Your task to perform on an android device: change text size in settings app Image 0: 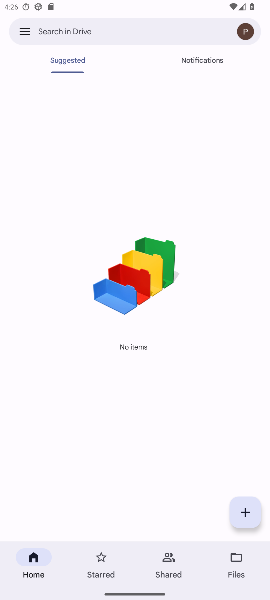
Step 0: press home button
Your task to perform on an android device: change text size in settings app Image 1: 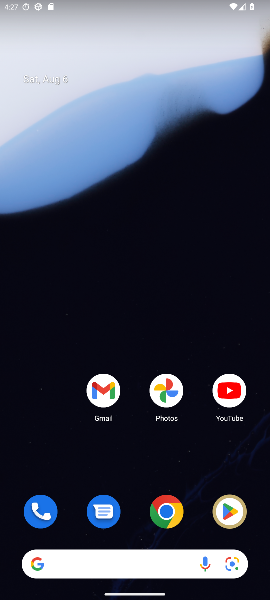
Step 1: drag from (135, 462) to (172, 117)
Your task to perform on an android device: change text size in settings app Image 2: 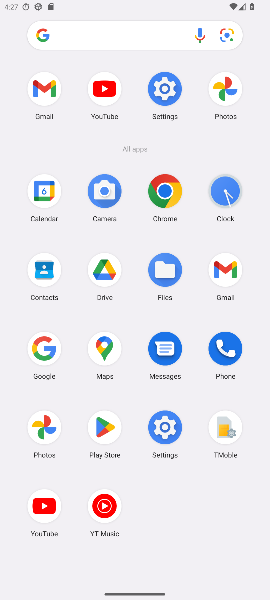
Step 2: click (168, 434)
Your task to perform on an android device: change text size in settings app Image 3: 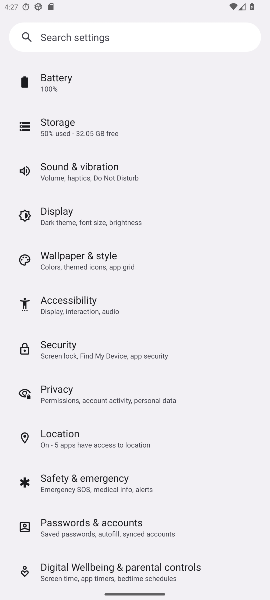
Step 3: click (94, 219)
Your task to perform on an android device: change text size in settings app Image 4: 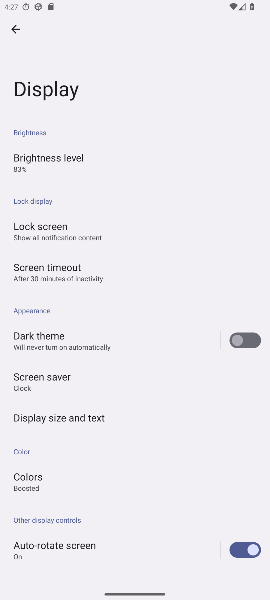
Step 4: drag from (59, 437) to (125, 81)
Your task to perform on an android device: change text size in settings app Image 5: 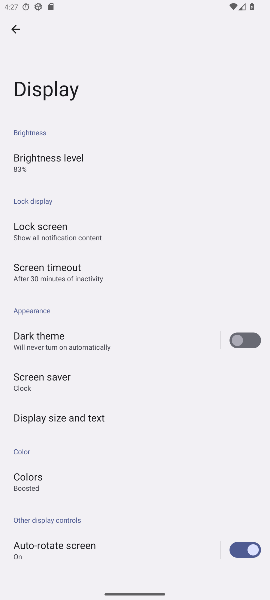
Step 5: click (64, 421)
Your task to perform on an android device: change text size in settings app Image 6: 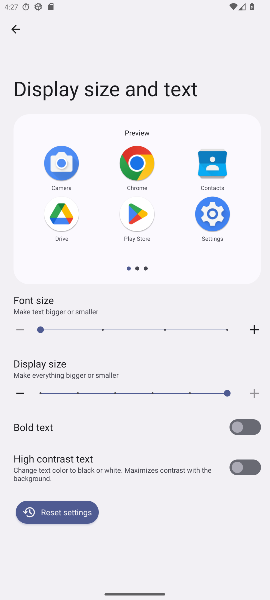
Step 6: click (98, 327)
Your task to perform on an android device: change text size in settings app Image 7: 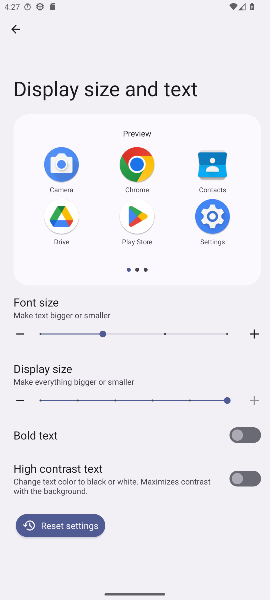
Step 7: task complete